Your task to perform on an android device: Is it going to rain this weekend? Image 0: 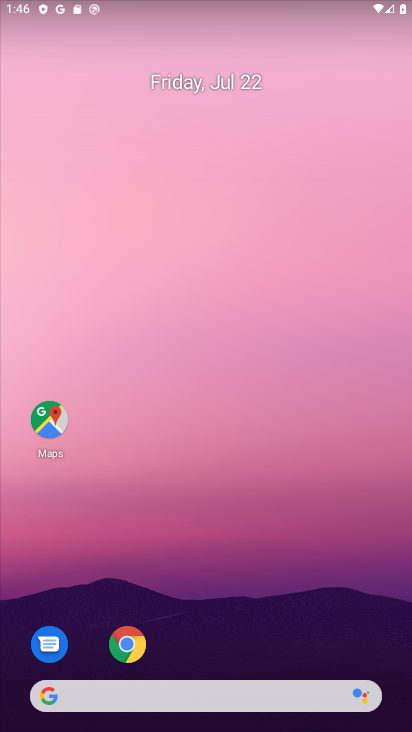
Step 0: click (135, 655)
Your task to perform on an android device: Is it going to rain this weekend? Image 1: 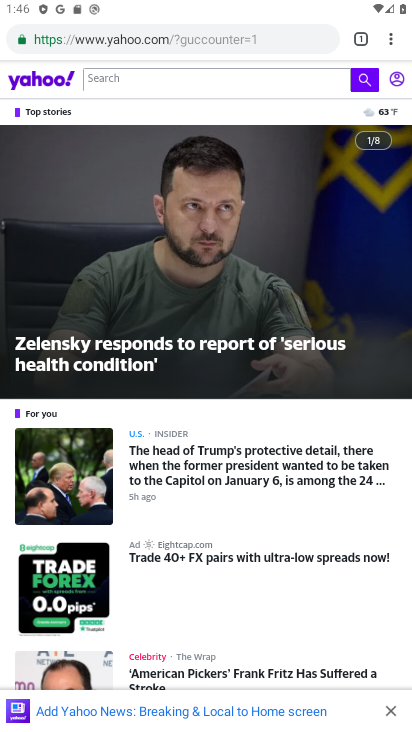
Step 1: click (282, 46)
Your task to perform on an android device: Is it going to rain this weekend? Image 2: 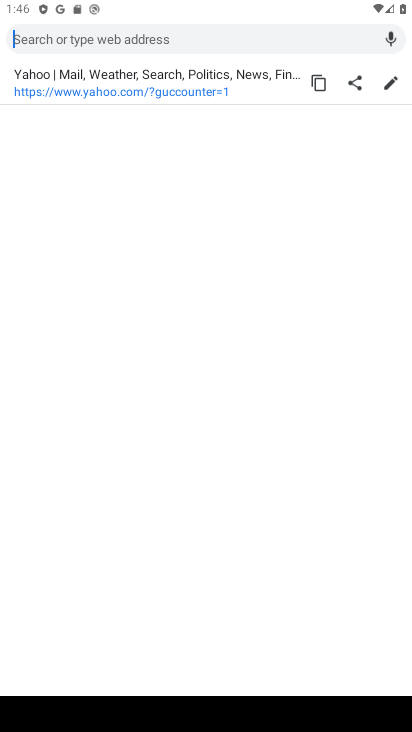
Step 2: click (156, 35)
Your task to perform on an android device: Is it going to rain this weekend? Image 3: 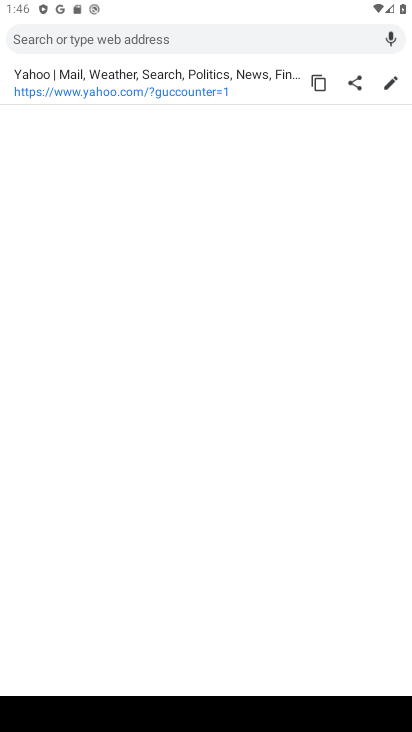
Step 3: type "Is it going to rain this weekend?"
Your task to perform on an android device: Is it going to rain this weekend? Image 4: 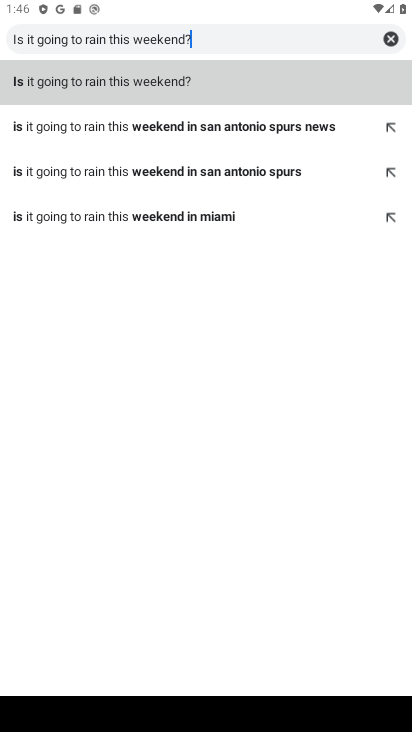
Step 4: click (217, 71)
Your task to perform on an android device: Is it going to rain this weekend? Image 5: 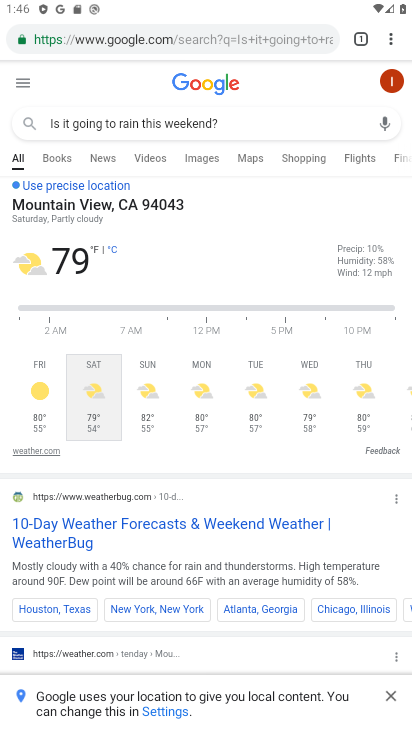
Step 5: task complete